Your task to perform on an android device: delete a single message in the gmail app Image 0: 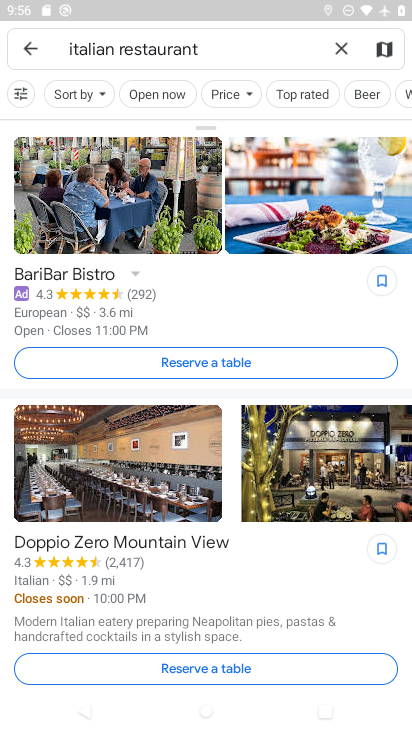
Step 0: press home button
Your task to perform on an android device: delete a single message in the gmail app Image 1: 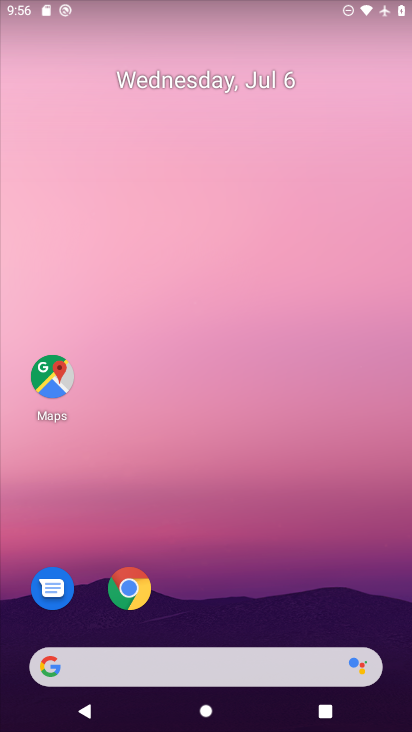
Step 1: drag from (193, 663) to (358, 0)
Your task to perform on an android device: delete a single message in the gmail app Image 2: 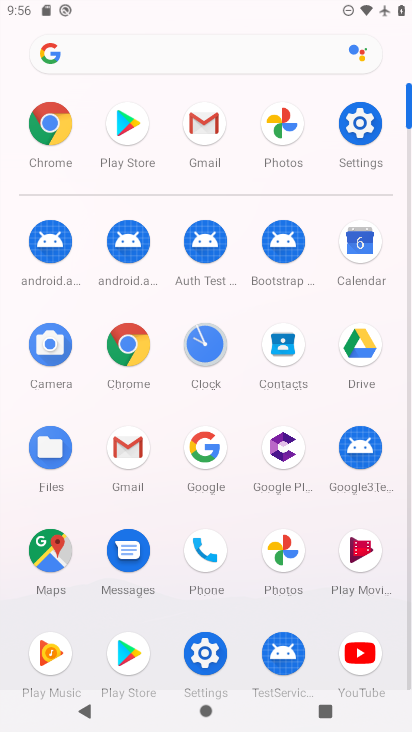
Step 2: click (119, 453)
Your task to perform on an android device: delete a single message in the gmail app Image 3: 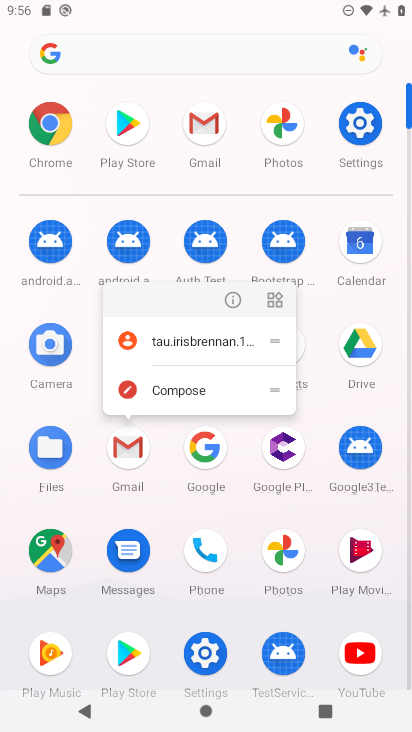
Step 3: click (119, 455)
Your task to perform on an android device: delete a single message in the gmail app Image 4: 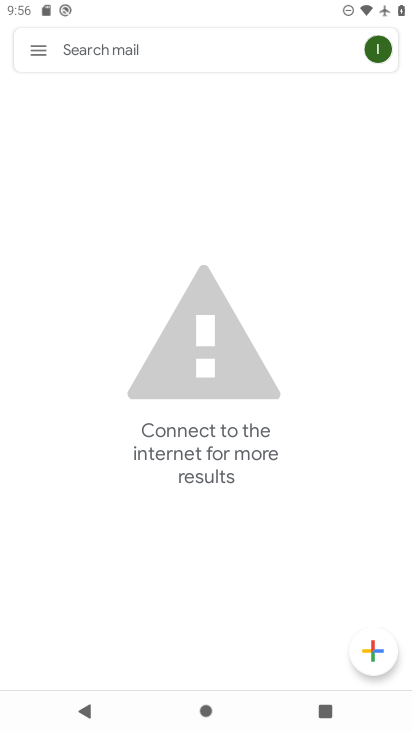
Step 4: task complete